Your task to perform on an android device: Go to Google maps Image 0: 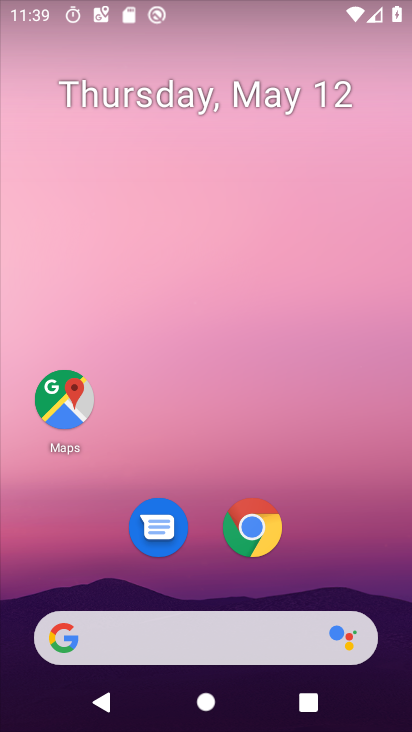
Step 0: click (65, 416)
Your task to perform on an android device: Go to Google maps Image 1: 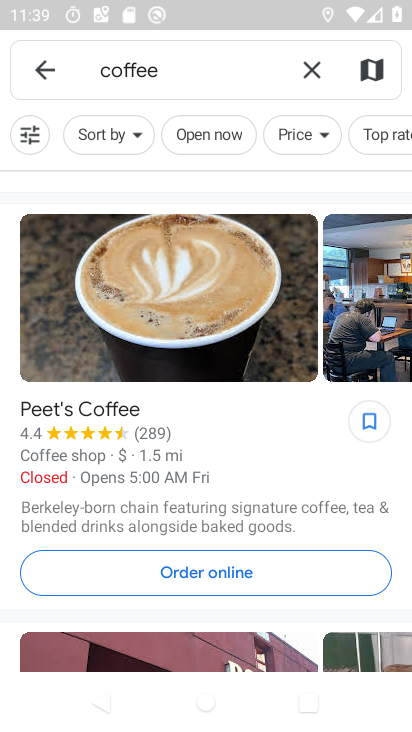
Step 1: click (52, 71)
Your task to perform on an android device: Go to Google maps Image 2: 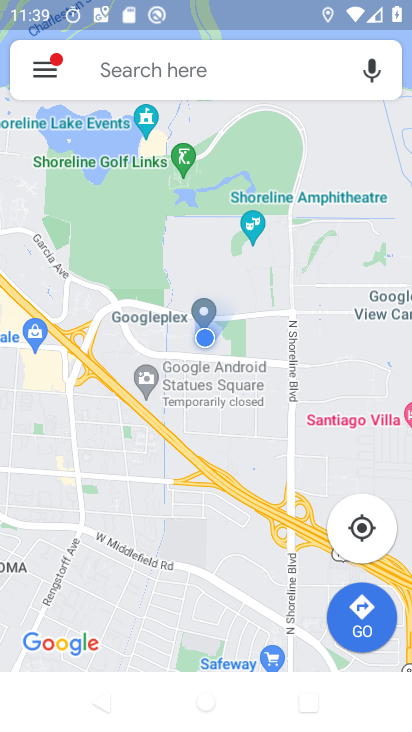
Step 2: task complete